Your task to perform on an android device: Open calendar and show me the fourth week of next month Image 0: 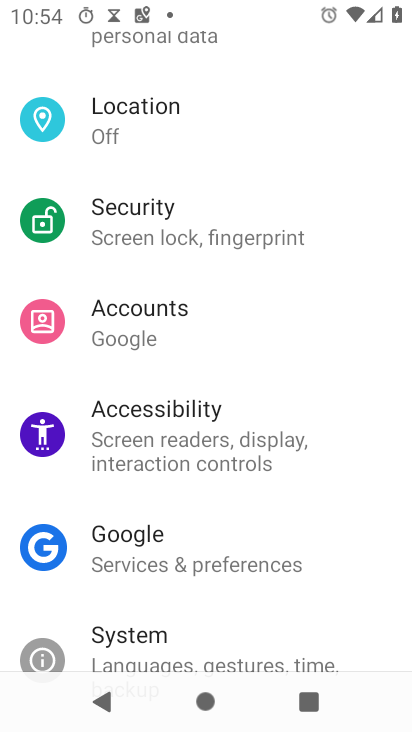
Step 0: press home button
Your task to perform on an android device: Open calendar and show me the fourth week of next month Image 1: 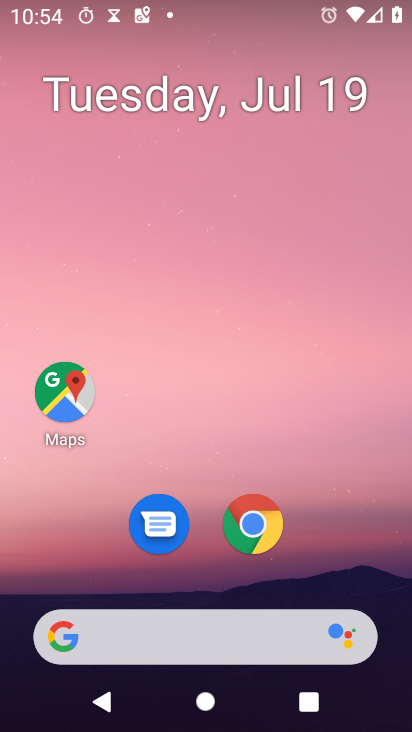
Step 1: drag from (193, 589) to (296, 114)
Your task to perform on an android device: Open calendar and show me the fourth week of next month Image 2: 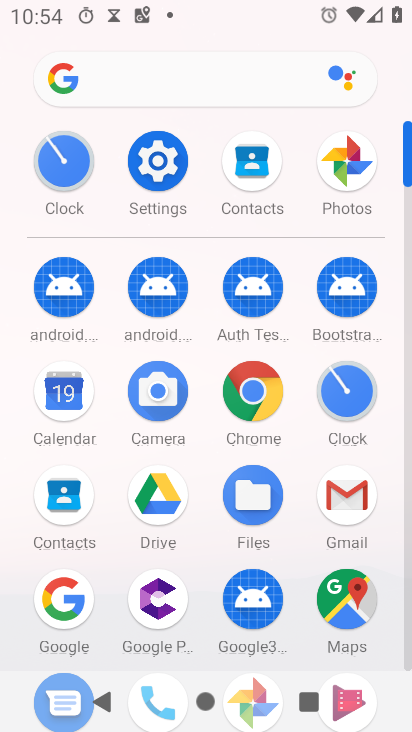
Step 2: click (70, 397)
Your task to perform on an android device: Open calendar and show me the fourth week of next month Image 3: 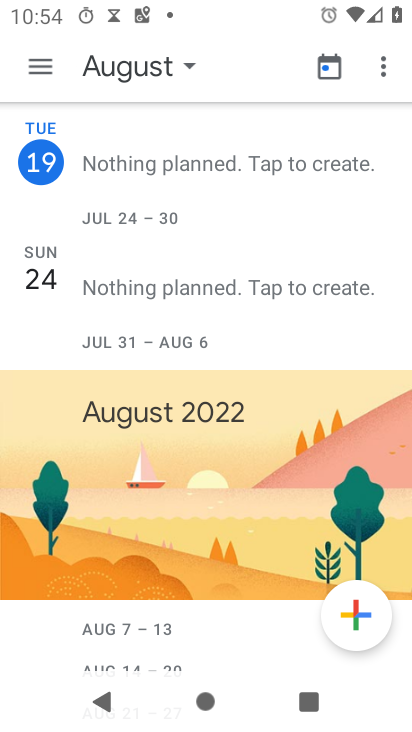
Step 3: click (95, 65)
Your task to perform on an android device: Open calendar and show me the fourth week of next month Image 4: 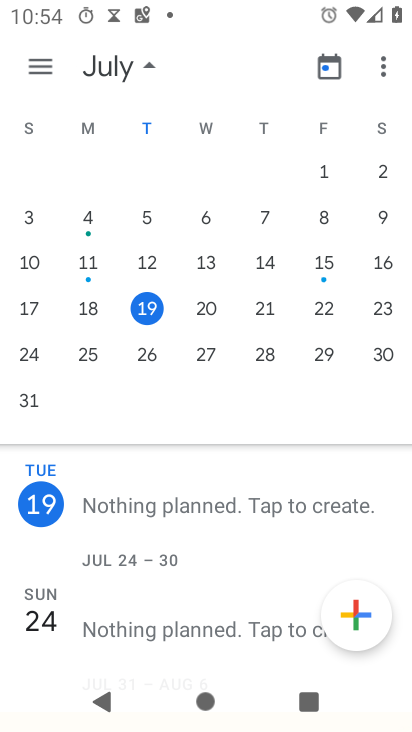
Step 4: drag from (339, 256) to (41, 292)
Your task to perform on an android device: Open calendar and show me the fourth week of next month Image 5: 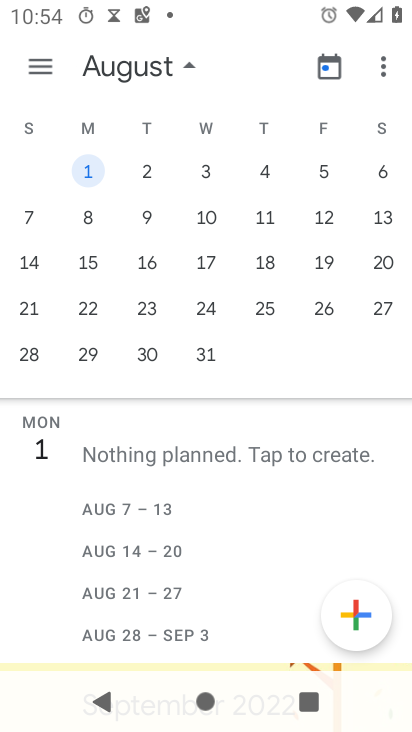
Step 5: click (27, 306)
Your task to perform on an android device: Open calendar and show me the fourth week of next month Image 6: 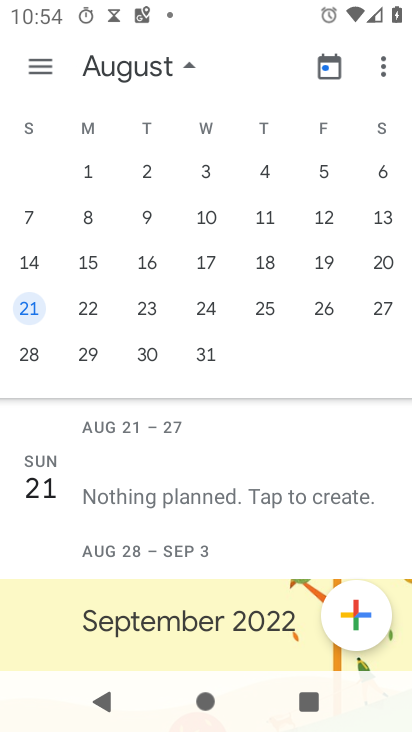
Step 6: click (36, 59)
Your task to perform on an android device: Open calendar and show me the fourth week of next month Image 7: 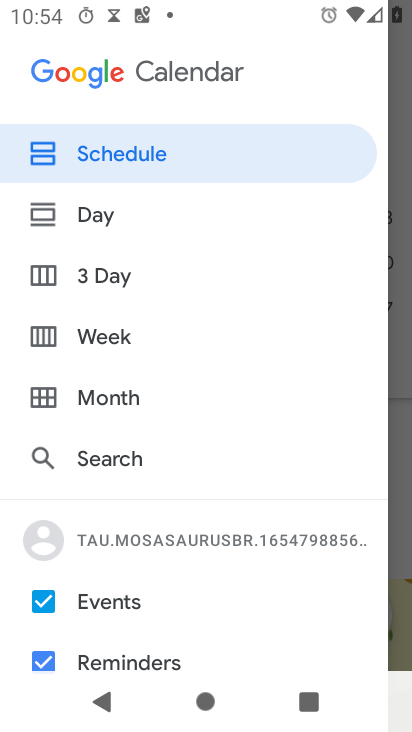
Step 7: click (123, 343)
Your task to perform on an android device: Open calendar and show me the fourth week of next month Image 8: 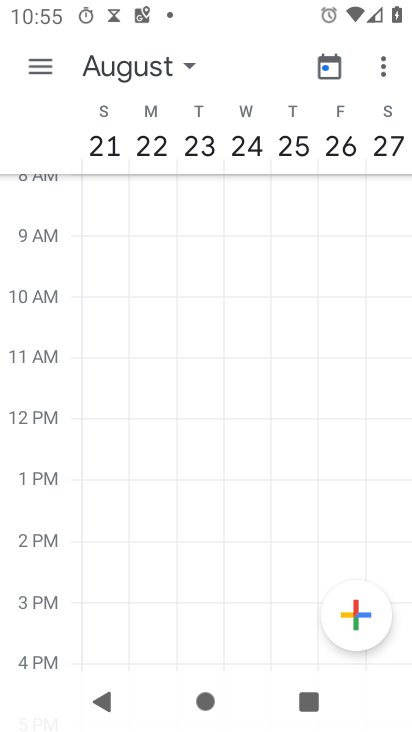
Step 8: task complete